Your task to perform on an android device: Go to Yahoo.com Image 0: 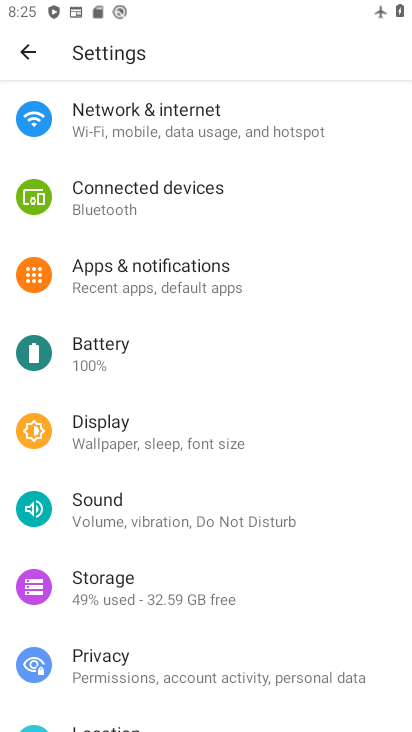
Step 0: press home button
Your task to perform on an android device: Go to Yahoo.com Image 1: 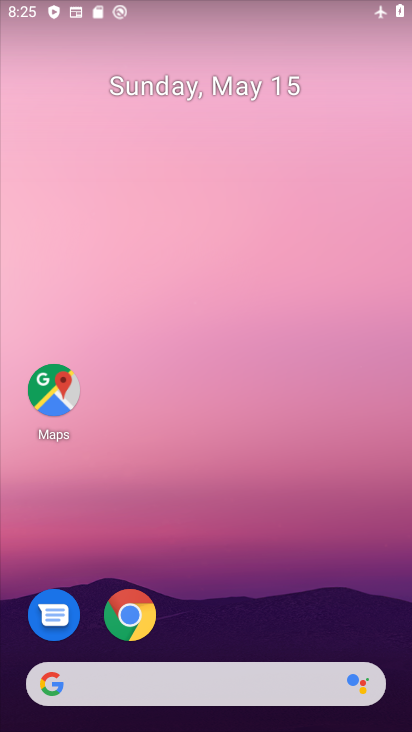
Step 1: click (120, 602)
Your task to perform on an android device: Go to Yahoo.com Image 2: 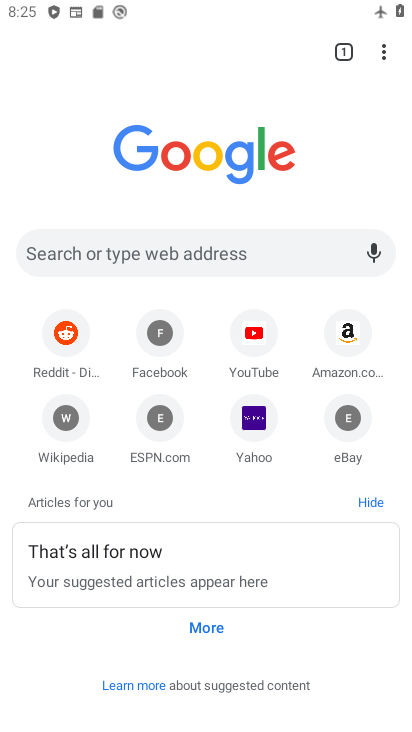
Step 2: click (255, 411)
Your task to perform on an android device: Go to Yahoo.com Image 3: 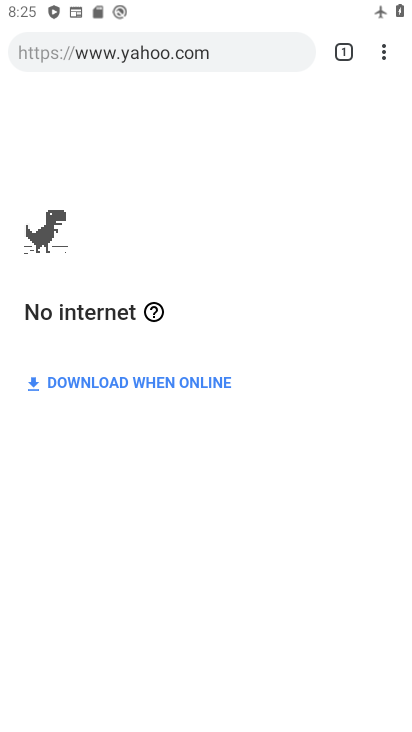
Step 3: task complete